Your task to perform on an android device: create a new album in the google photos Image 0: 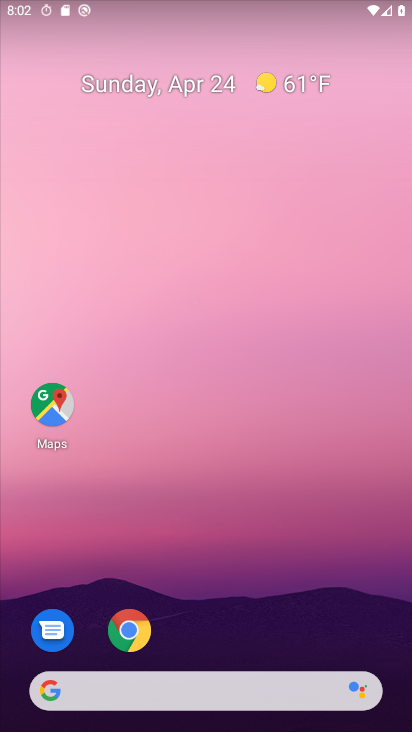
Step 0: drag from (363, 615) to (357, 101)
Your task to perform on an android device: create a new album in the google photos Image 1: 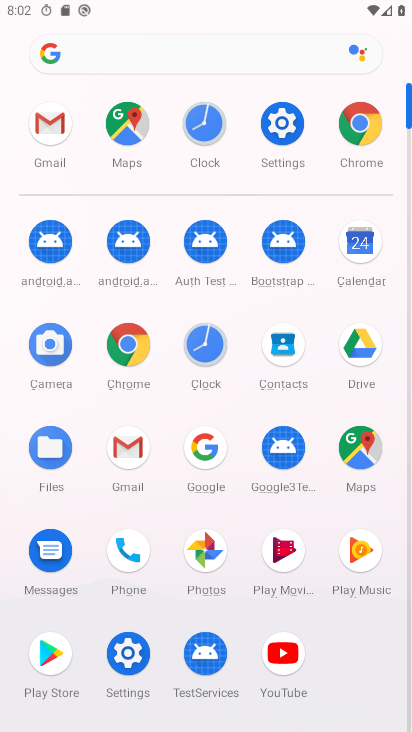
Step 1: click (201, 561)
Your task to perform on an android device: create a new album in the google photos Image 2: 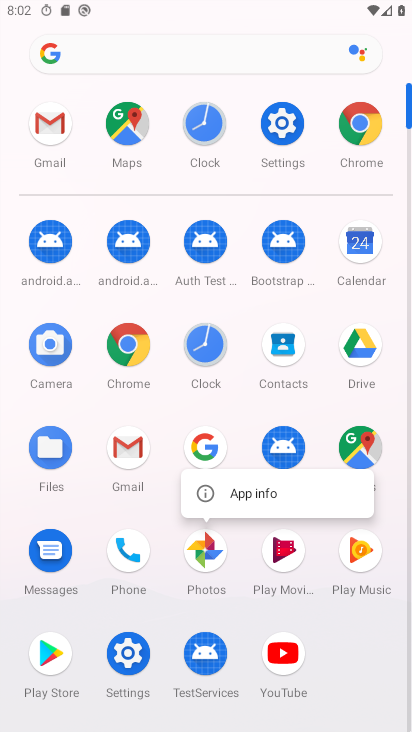
Step 2: click (201, 561)
Your task to perform on an android device: create a new album in the google photos Image 3: 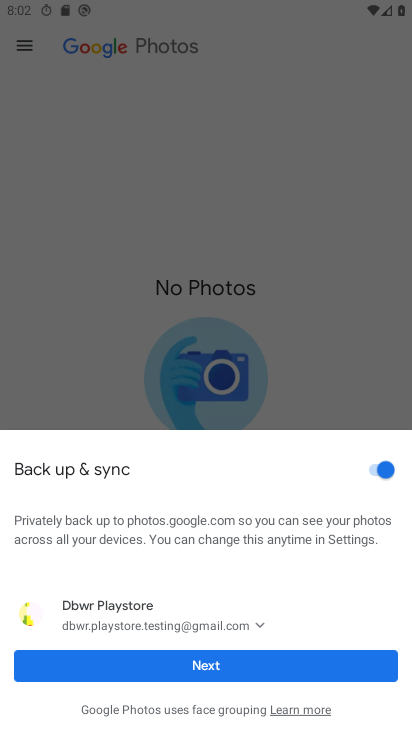
Step 3: click (300, 665)
Your task to perform on an android device: create a new album in the google photos Image 4: 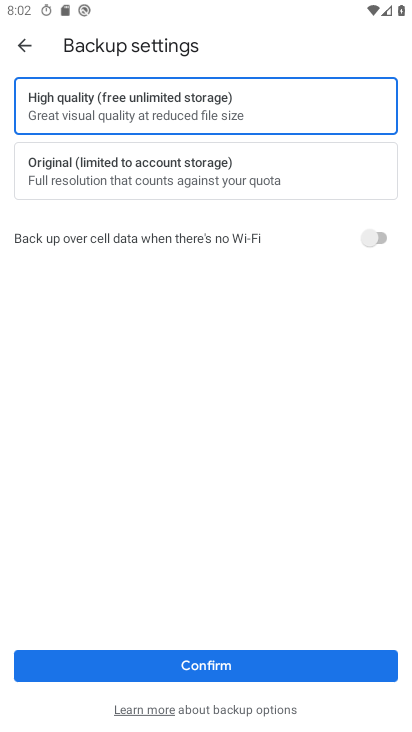
Step 4: click (300, 665)
Your task to perform on an android device: create a new album in the google photos Image 5: 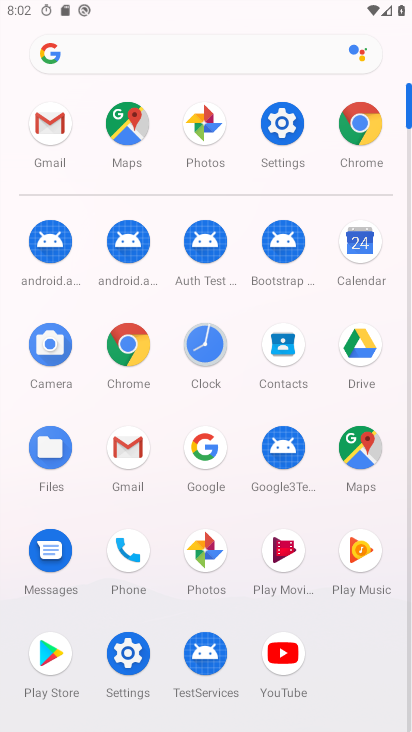
Step 5: click (214, 562)
Your task to perform on an android device: create a new album in the google photos Image 6: 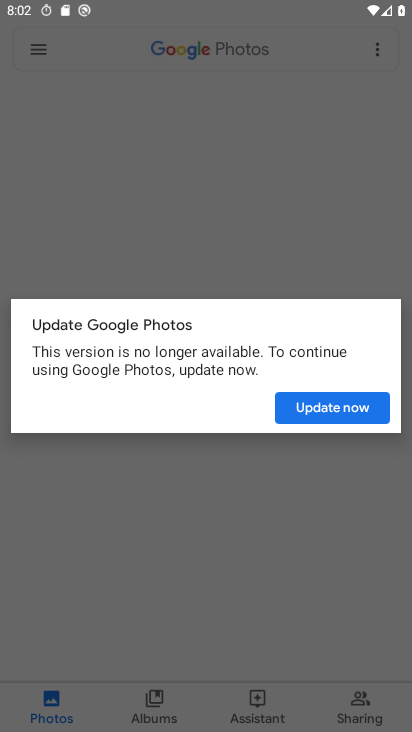
Step 6: click (308, 401)
Your task to perform on an android device: create a new album in the google photos Image 7: 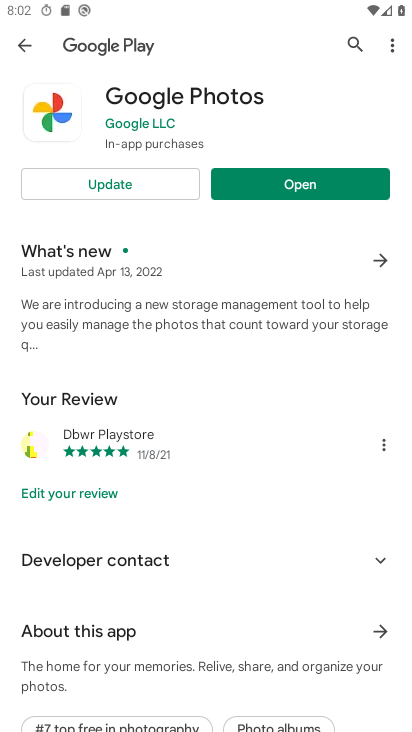
Step 7: click (155, 185)
Your task to perform on an android device: create a new album in the google photos Image 8: 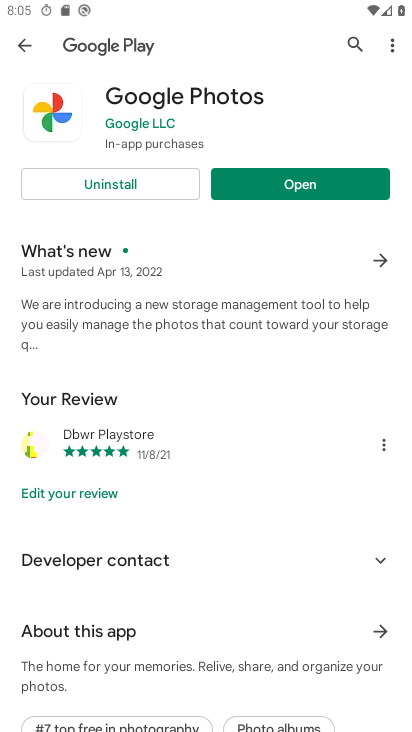
Step 8: click (372, 194)
Your task to perform on an android device: create a new album in the google photos Image 9: 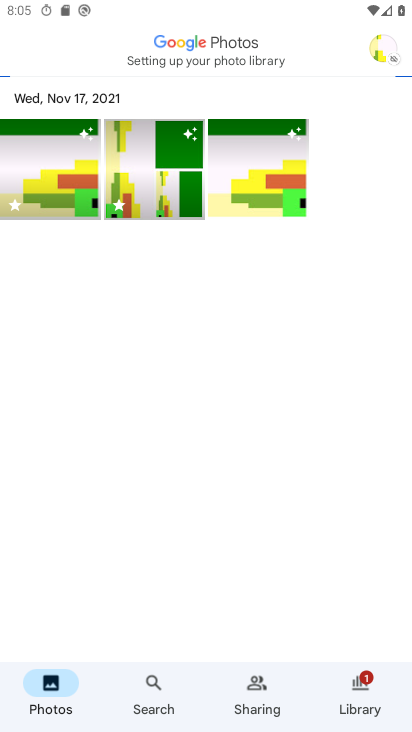
Step 9: click (344, 703)
Your task to perform on an android device: create a new album in the google photos Image 10: 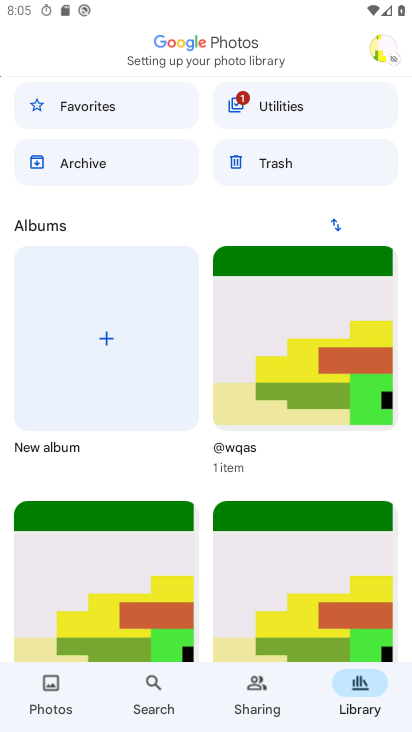
Step 10: click (102, 355)
Your task to perform on an android device: create a new album in the google photos Image 11: 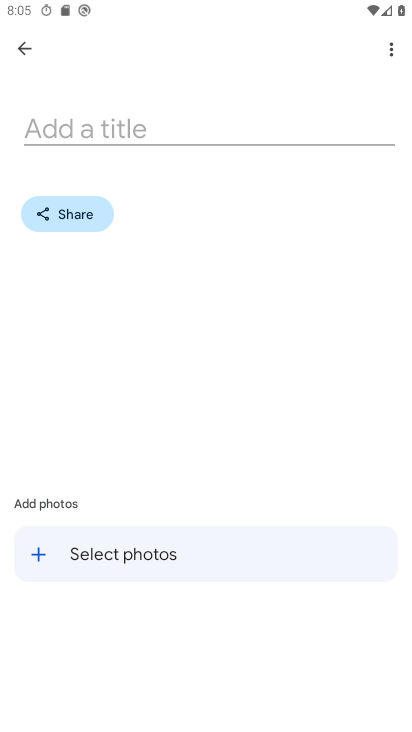
Step 11: click (233, 120)
Your task to perform on an android device: create a new album in the google photos Image 12: 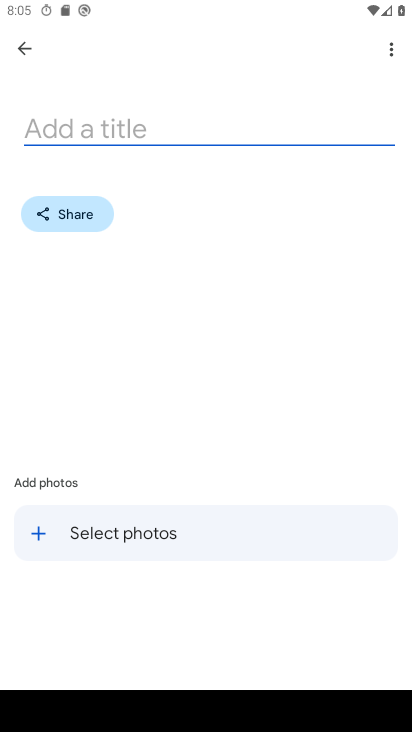
Step 12: type "fav"
Your task to perform on an android device: create a new album in the google photos Image 13: 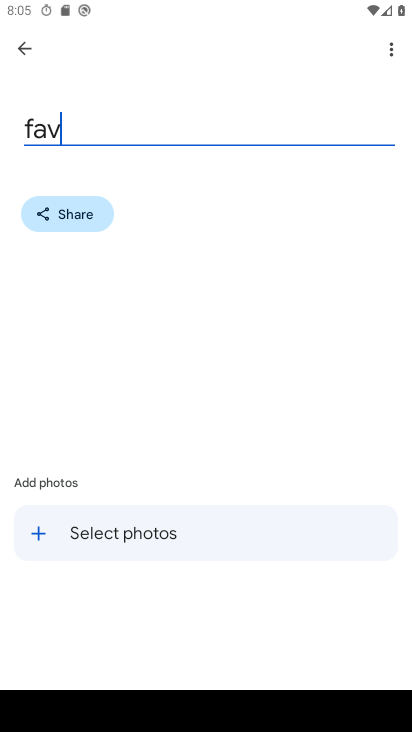
Step 13: click (162, 539)
Your task to perform on an android device: create a new album in the google photos Image 14: 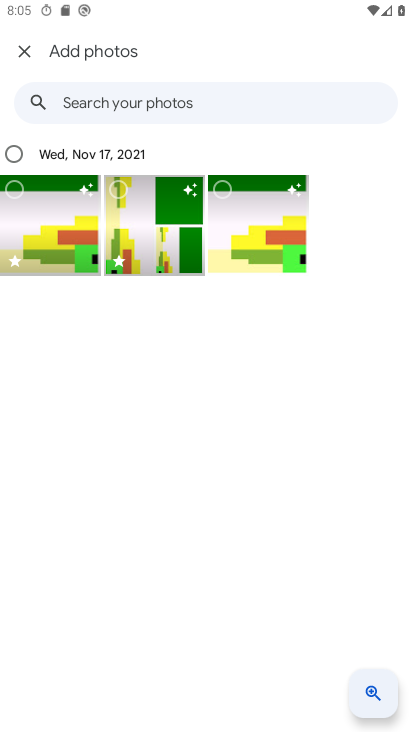
Step 14: click (123, 228)
Your task to perform on an android device: create a new album in the google photos Image 15: 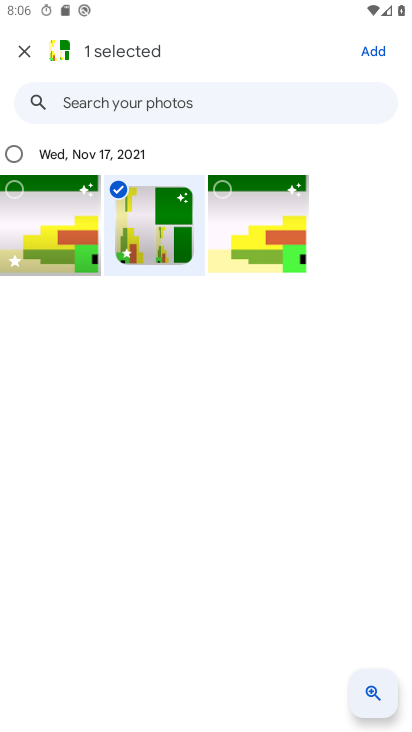
Step 15: click (383, 41)
Your task to perform on an android device: create a new album in the google photos Image 16: 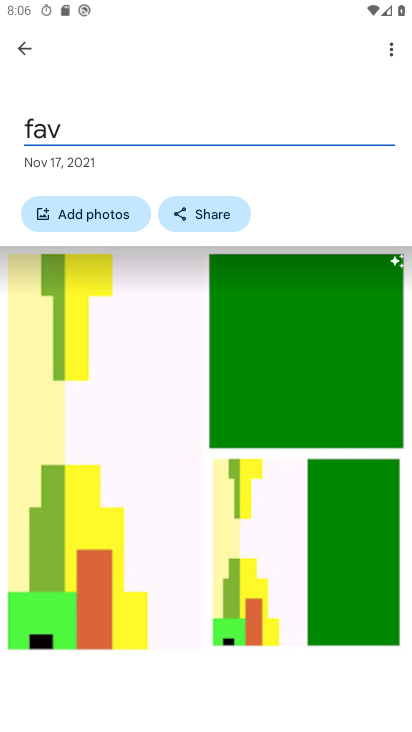
Step 16: task complete